Your task to perform on an android device: Clear the shopping cart on amazon. Search for macbook air on amazon, select the first entry, and add it to the cart. Image 0: 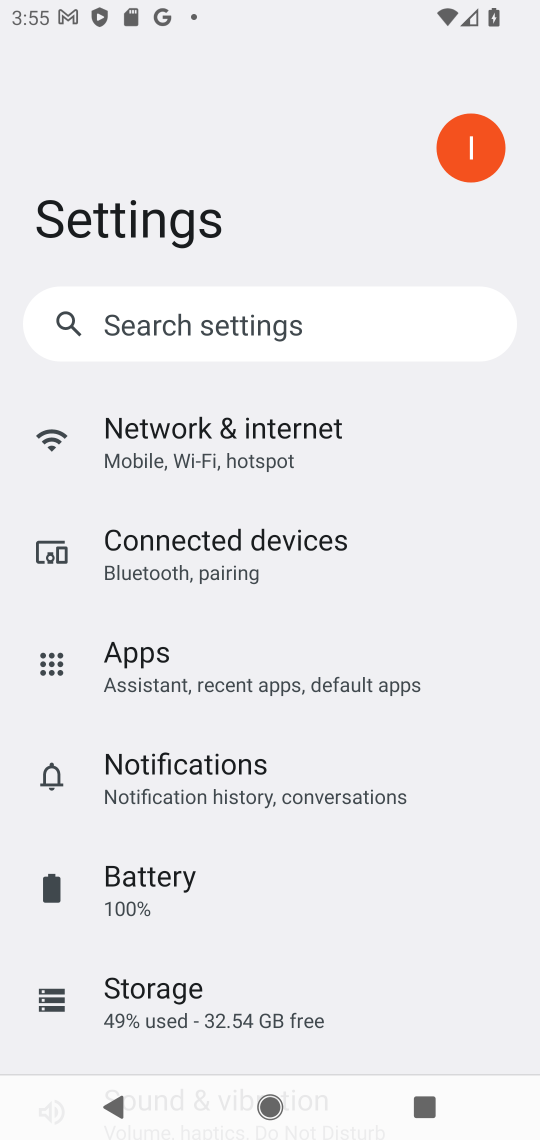
Step 0: press home button
Your task to perform on an android device: Clear the shopping cart on amazon. Search for macbook air on amazon, select the first entry, and add it to the cart. Image 1: 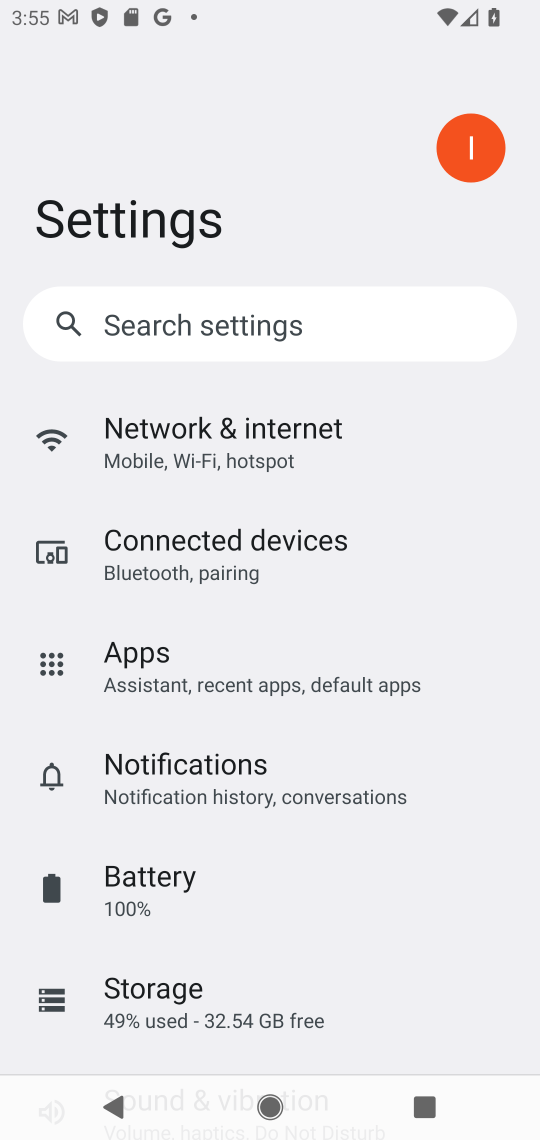
Step 1: press home button
Your task to perform on an android device: Clear the shopping cart on amazon. Search for macbook air on amazon, select the first entry, and add it to the cart. Image 2: 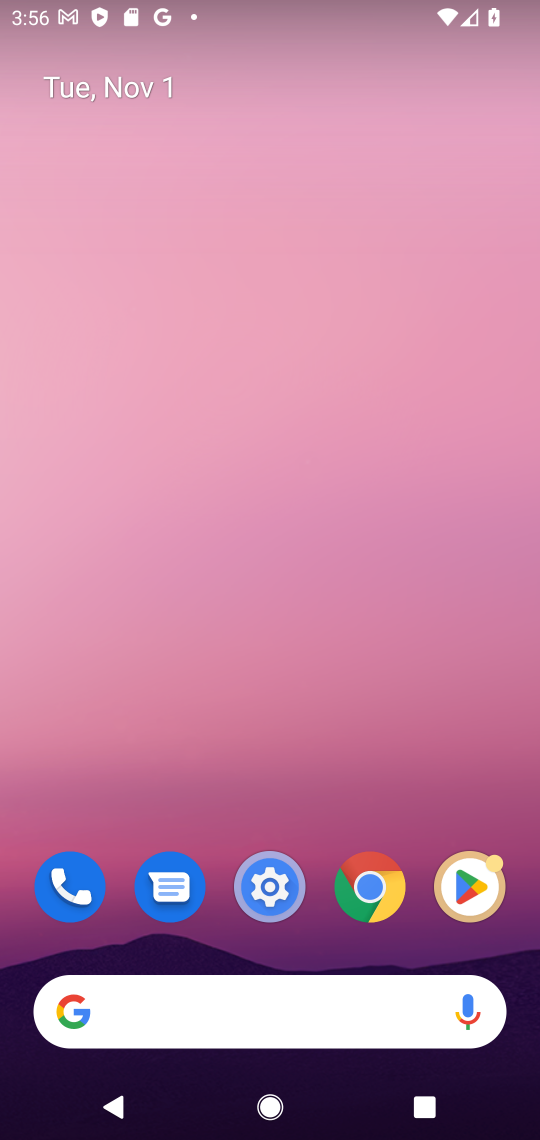
Step 2: drag from (332, 943) to (210, 24)
Your task to perform on an android device: Clear the shopping cart on amazon. Search for macbook air on amazon, select the first entry, and add it to the cart. Image 3: 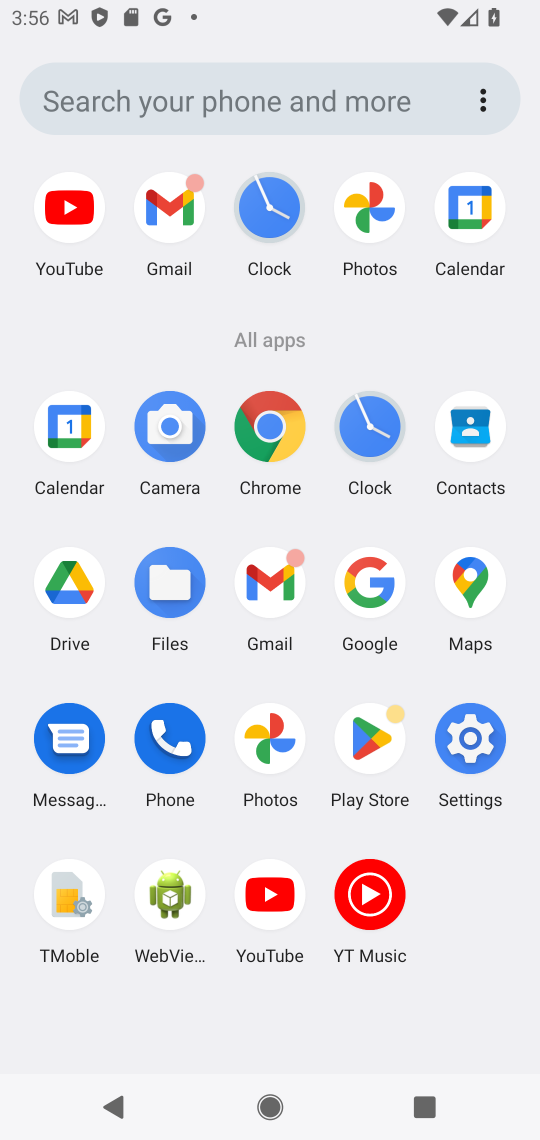
Step 3: click (270, 413)
Your task to perform on an android device: Clear the shopping cart on amazon. Search for macbook air on amazon, select the first entry, and add it to the cart. Image 4: 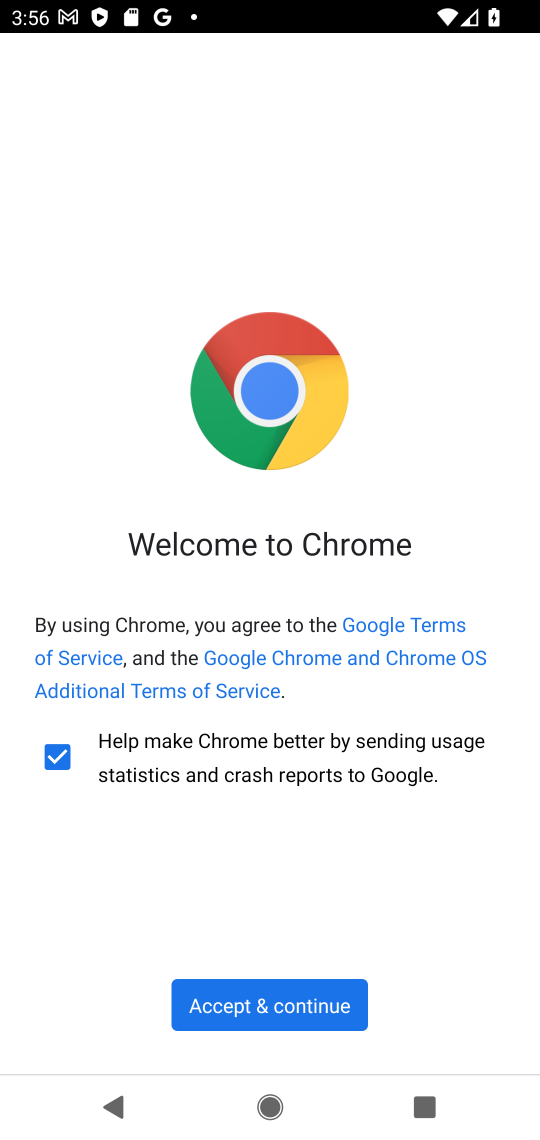
Step 4: click (304, 1020)
Your task to perform on an android device: Clear the shopping cart on amazon. Search for macbook air on amazon, select the first entry, and add it to the cart. Image 5: 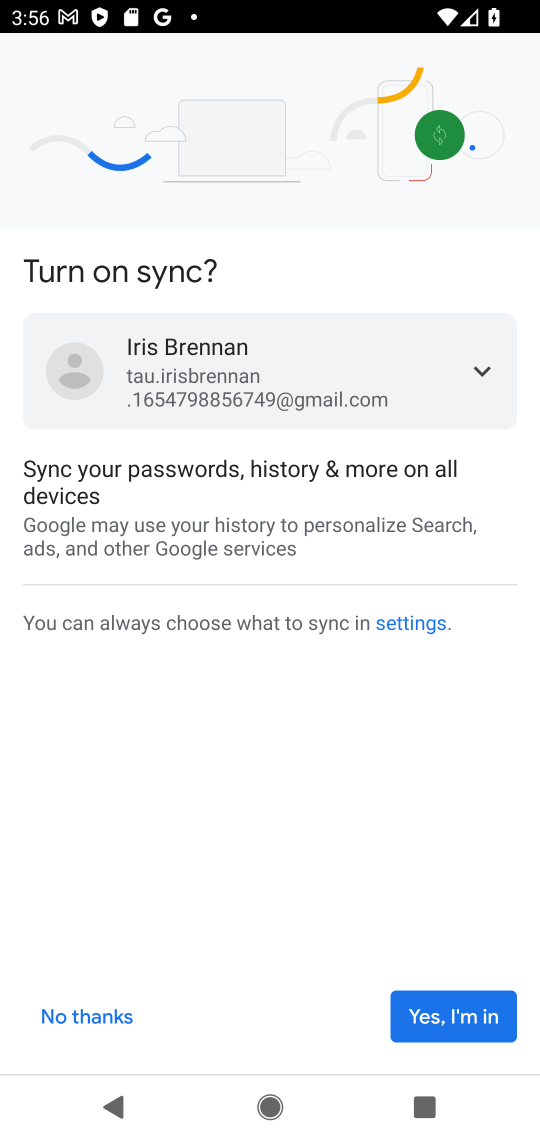
Step 5: click (447, 1025)
Your task to perform on an android device: Clear the shopping cart on amazon. Search for macbook air on amazon, select the first entry, and add it to the cart. Image 6: 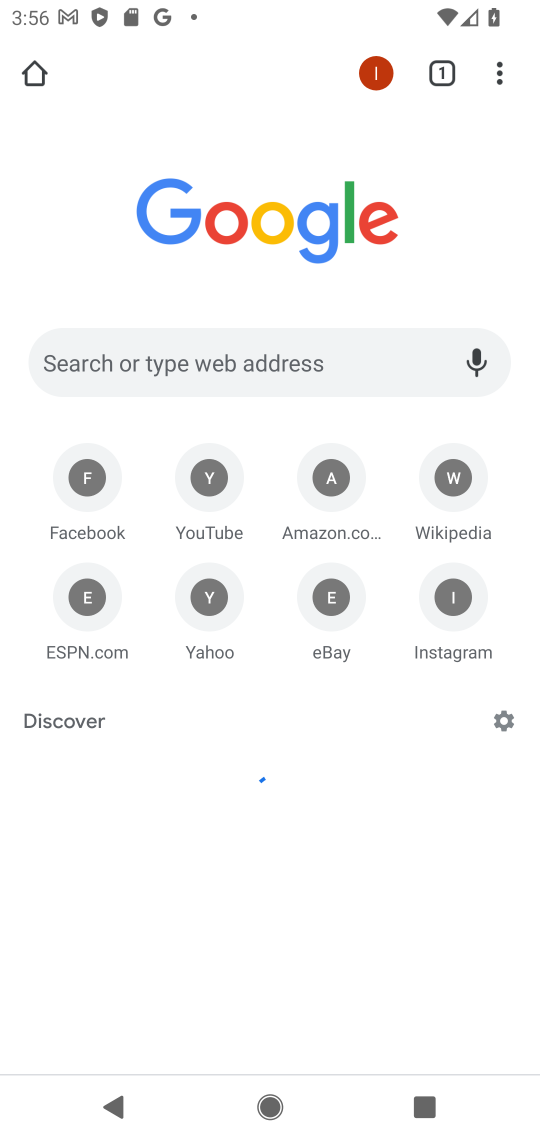
Step 6: click (492, 1001)
Your task to perform on an android device: Clear the shopping cart on amazon. Search for macbook air on amazon, select the first entry, and add it to the cart. Image 7: 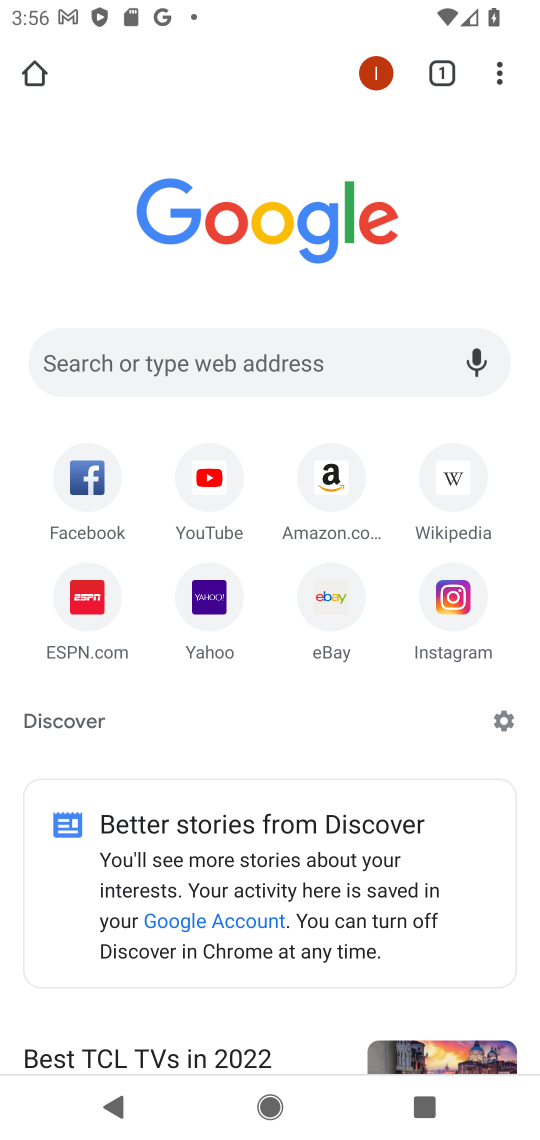
Step 7: click (315, 362)
Your task to perform on an android device: Clear the shopping cart on amazon. Search for macbook air on amazon, select the first entry, and add it to the cart. Image 8: 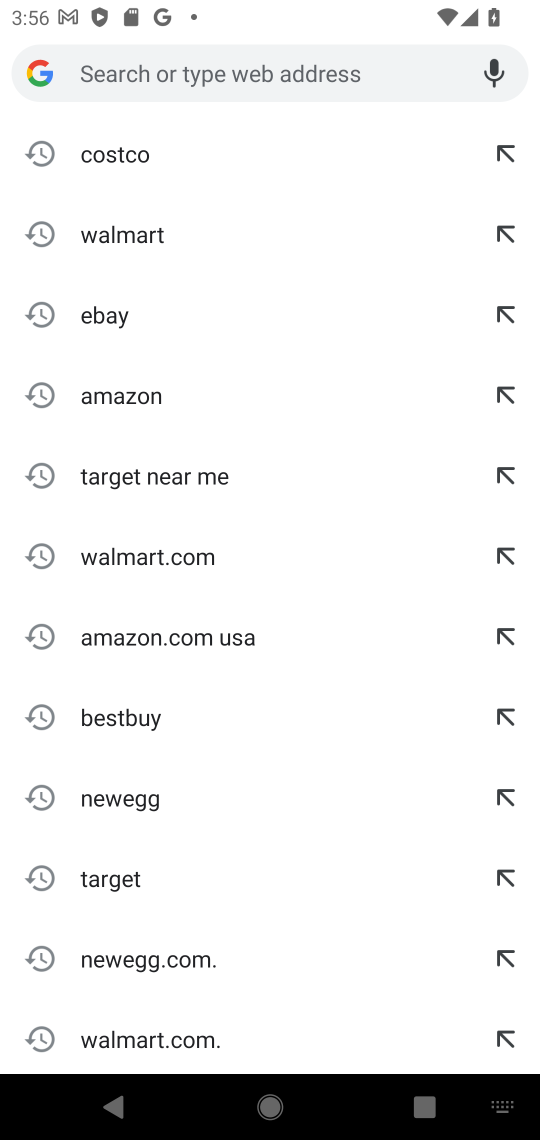
Step 8: type "amazon.com"
Your task to perform on an android device: Clear the shopping cart on amazon. Search for macbook air on amazon, select the first entry, and add it to the cart. Image 9: 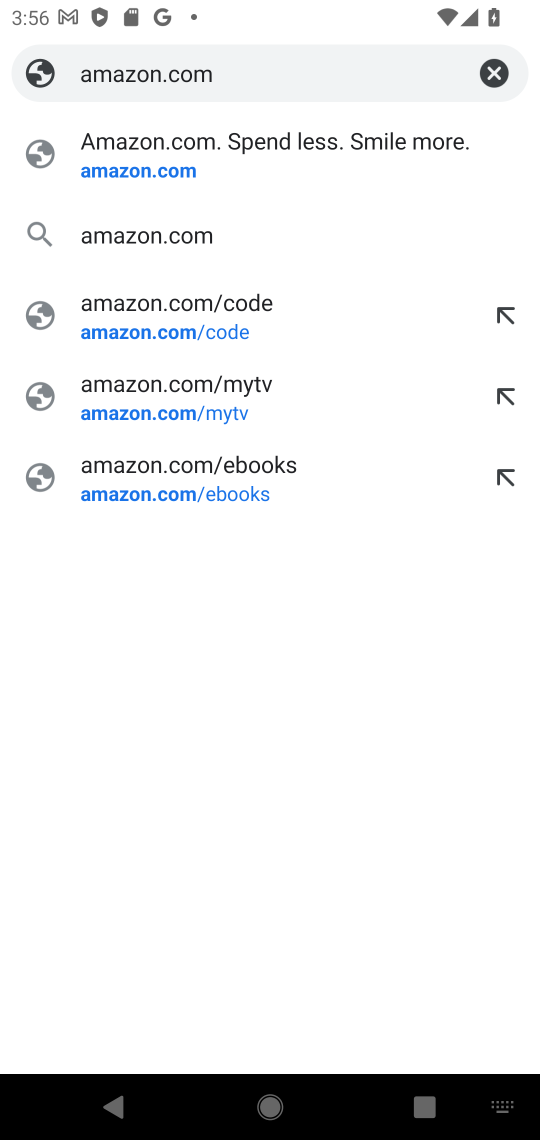
Step 9: press enter
Your task to perform on an android device: Clear the shopping cart on amazon. Search for macbook air on amazon, select the first entry, and add it to the cart. Image 10: 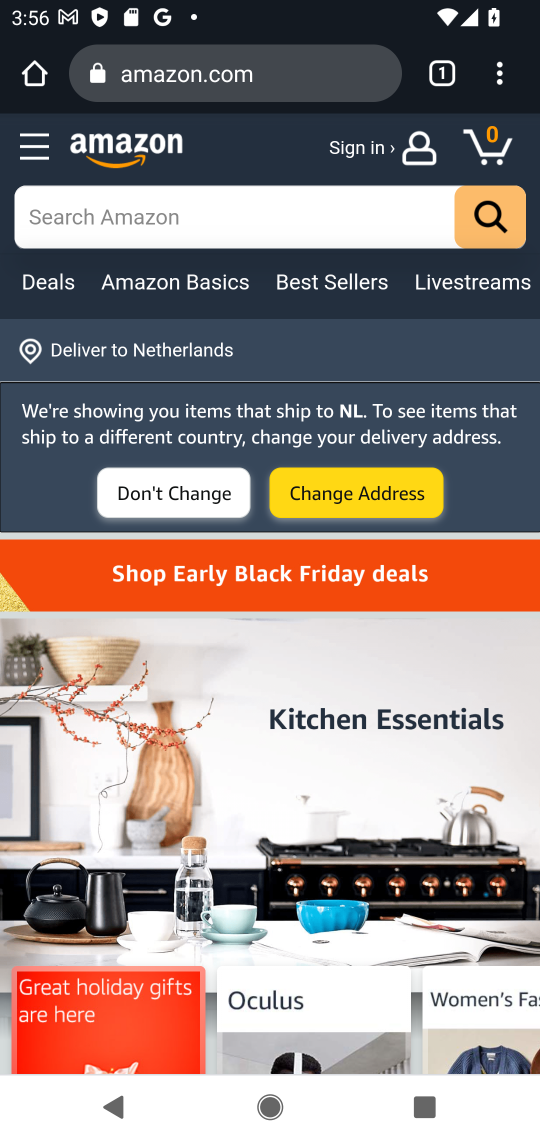
Step 10: click (497, 144)
Your task to perform on an android device: Clear the shopping cart on amazon. Search for macbook air on amazon, select the first entry, and add it to the cart. Image 11: 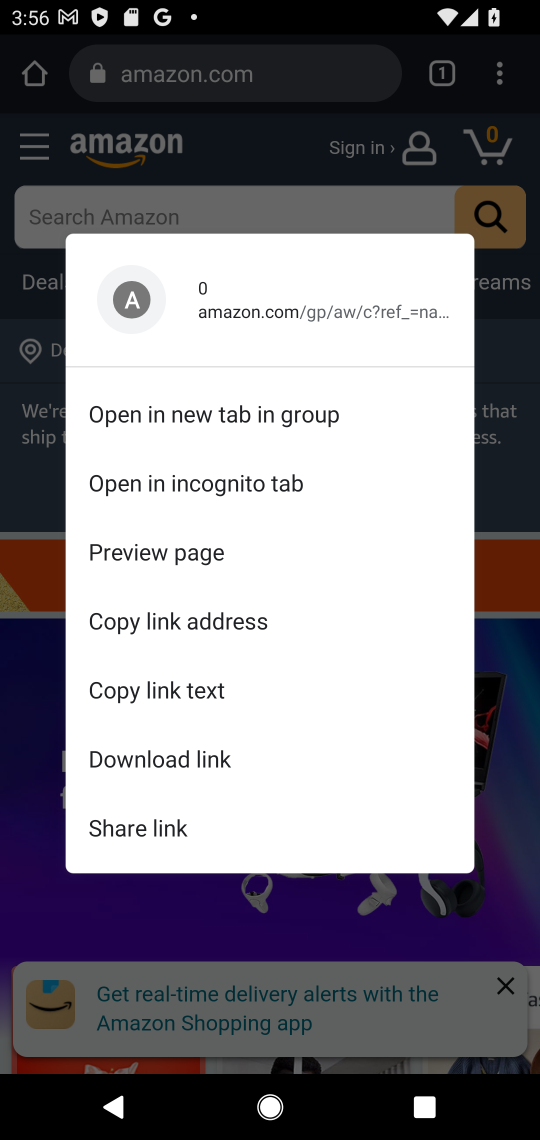
Step 11: click (499, 136)
Your task to perform on an android device: Clear the shopping cart on amazon. Search for macbook air on amazon, select the first entry, and add it to the cart. Image 12: 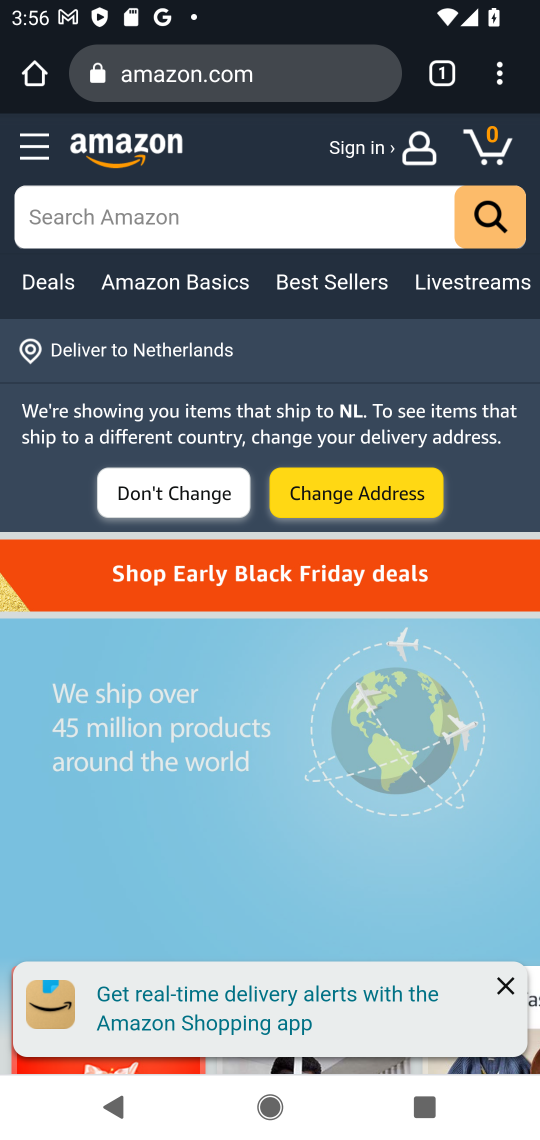
Step 12: click (506, 146)
Your task to perform on an android device: Clear the shopping cart on amazon. Search for macbook air on amazon, select the first entry, and add it to the cart. Image 13: 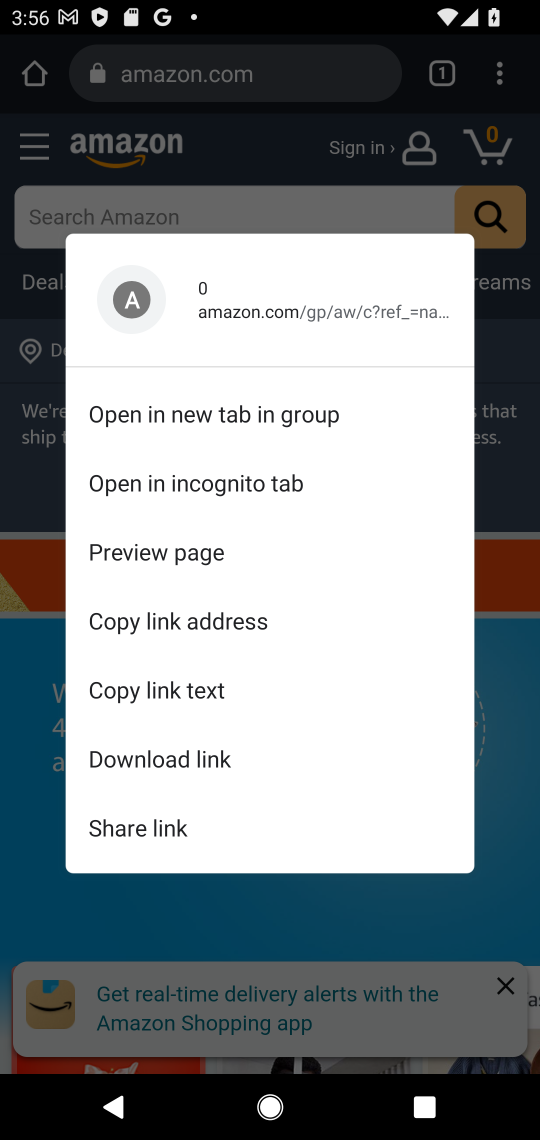
Step 13: click (507, 151)
Your task to perform on an android device: Clear the shopping cart on amazon. Search for macbook air on amazon, select the first entry, and add it to the cart. Image 14: 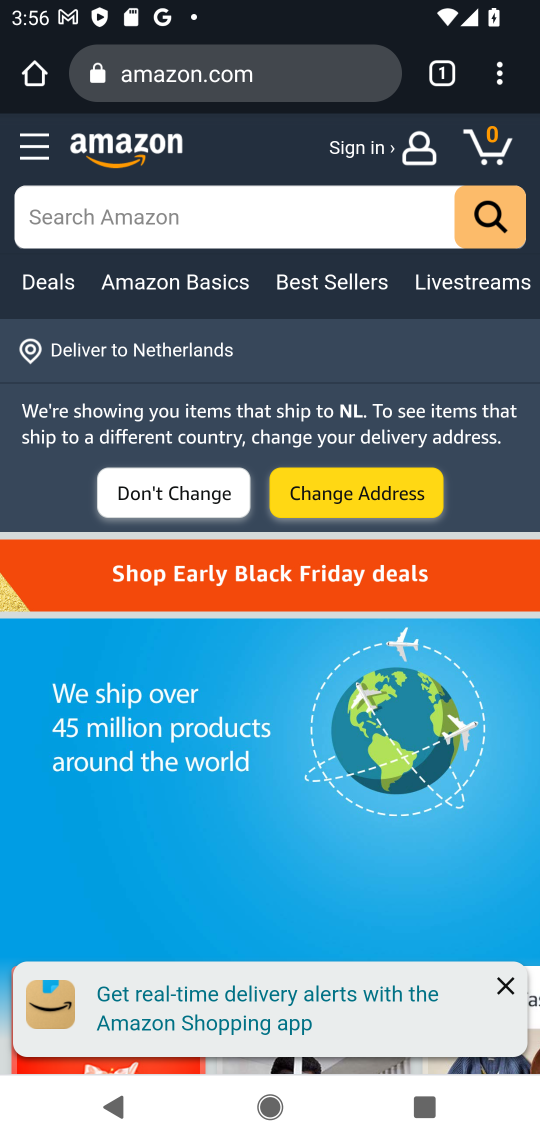
Step 14: click (507, 151)
Your task to perform on an android device: Clear the shopping cart on amazon. Search for macbook air on amazon, select the first entry, and add it to the cart. Image 15: 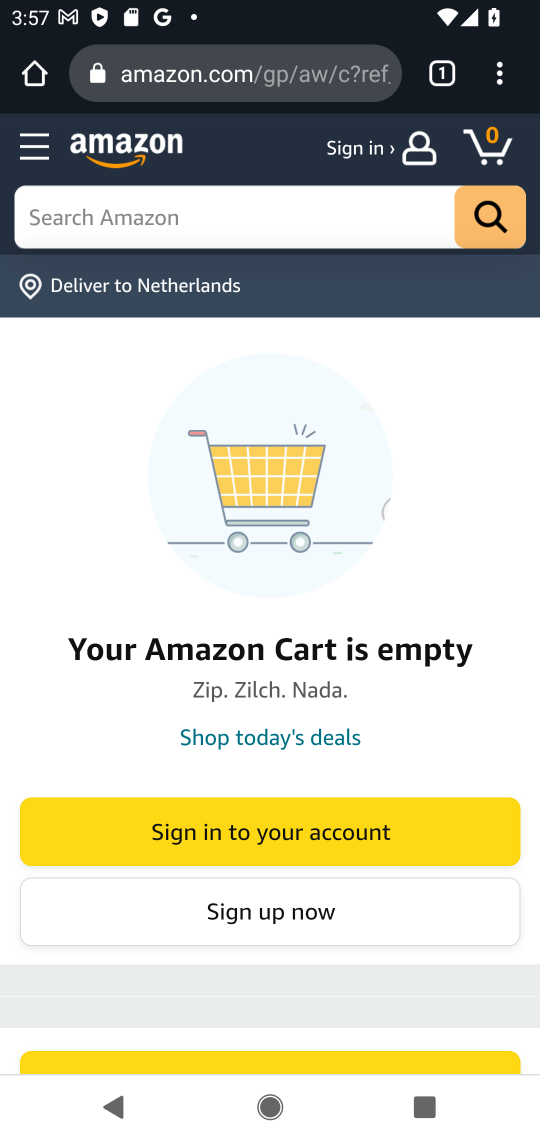
Step 15: click (304, 215)
Your task to perform on an android device: Clear the shopping cart on amazon. Search for macbook air on amazon, select the first entry, and add it to the cart. Image 16: 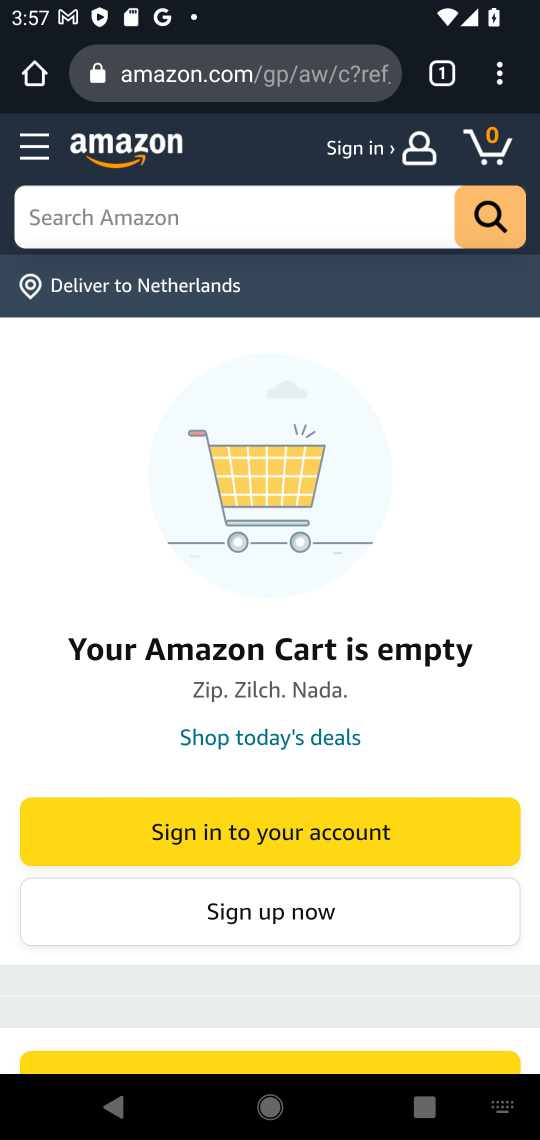
Step 16: type "macbook"
Your task to perform on an android device: Clear the shopping cart on amazon. Search for macbook air on amazon, select the first entry, and add it to the cart. Image 17: 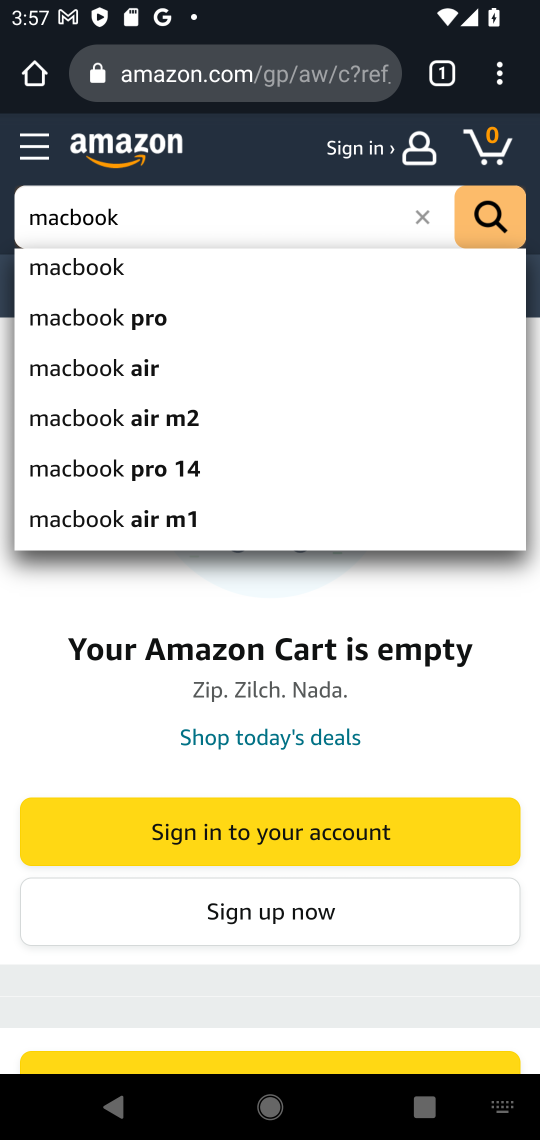
Step 17: press enter
Your task to perform on an android device: Clear the shopping cart on amazon. Search for macbook air on amazon, select the first entry, and add it to the cart. Image 18: 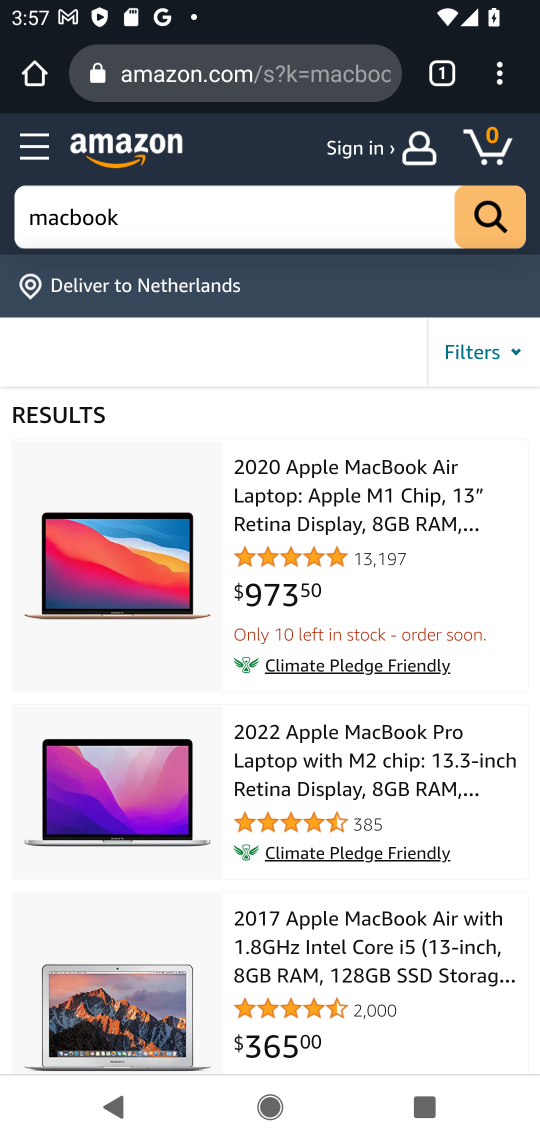
Step 18: drag from (290, 720) to (349, 457)
Your task to perform on an android device: Clear the shopping cart on amazon. Search for macbook air on amazon, select the first entry, and add it to the cart. Image 19: 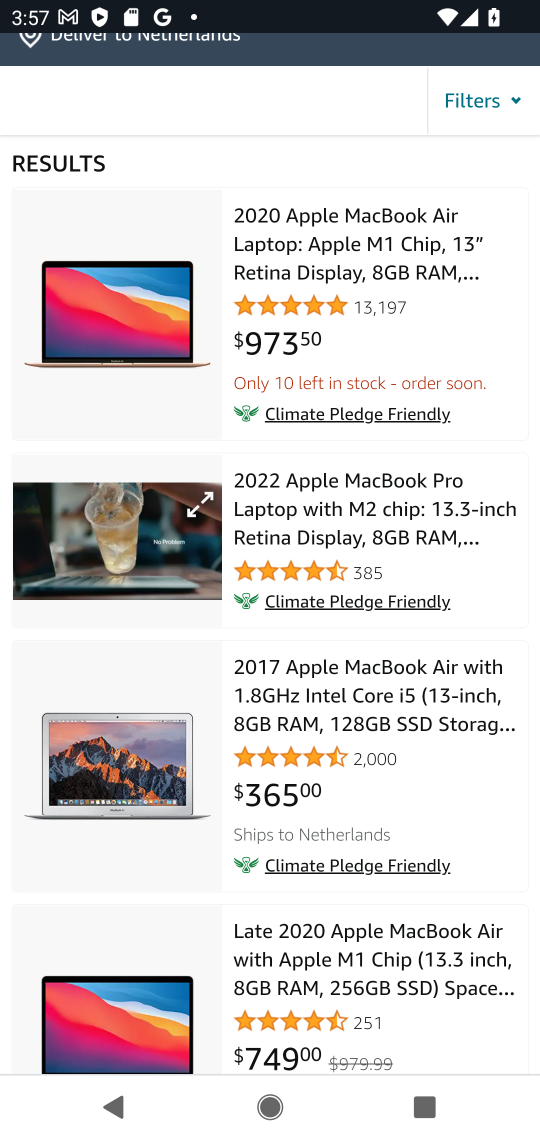
Step 19: click (81, 300)
Your task to perform on an android device: Clear the shopping cart on amazon. Search for macbook air on amazon, select the first entry, and add it to the cart. Image 20: 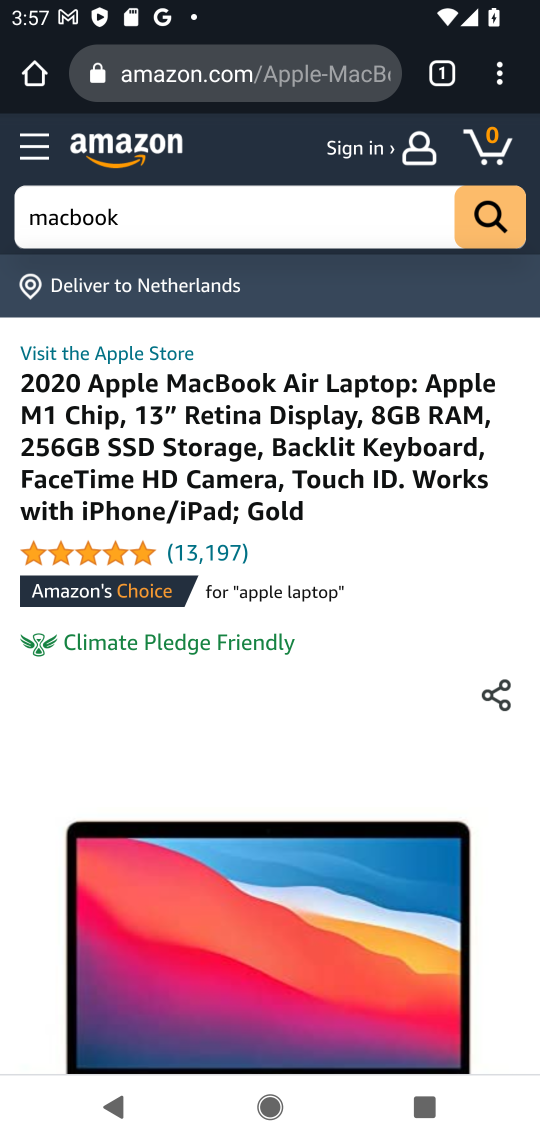
Step 20: drag from (278, 886) to (291, 461)
Your task to perform on an android device: Clear the shopping cart on amazon. Search for macbook air on amazon, select the first entry, and add it to the cart. Image 21: 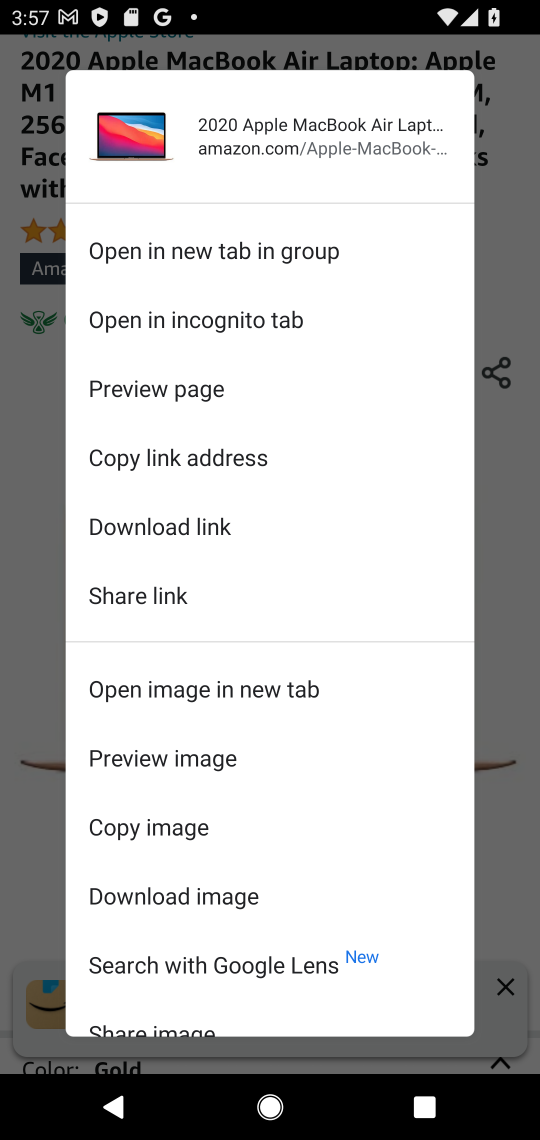
Step 21: click (517, 685)
Your task to perform on an android device: Clear the shopping cart on amazon. Search for macbook air on amazon, select the first entry, and add it to the cart. Image 22: 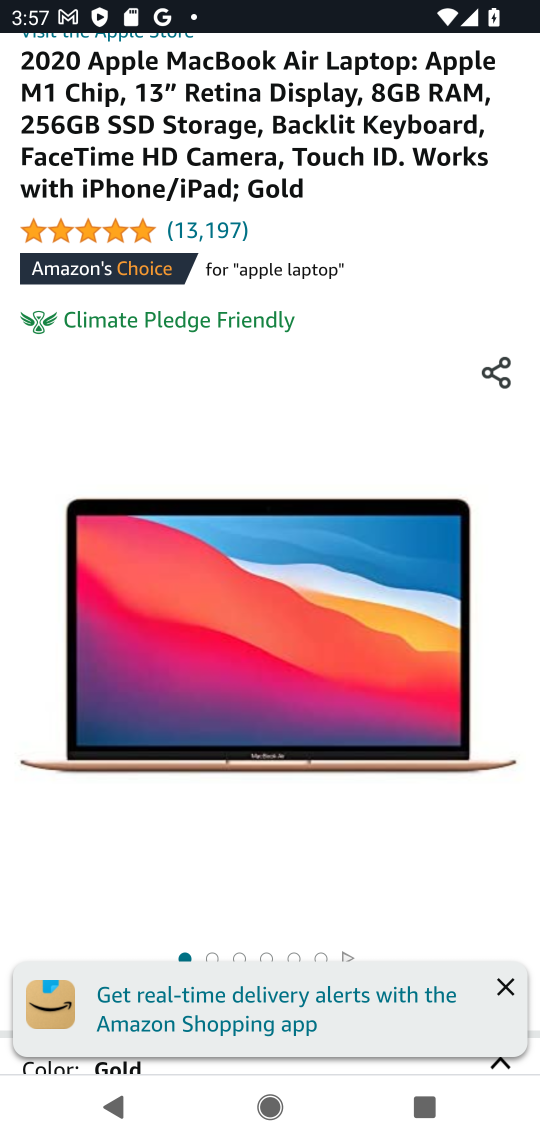
Step 22: task complete